Your task to perform on an android device: Go to display settings Image 0: 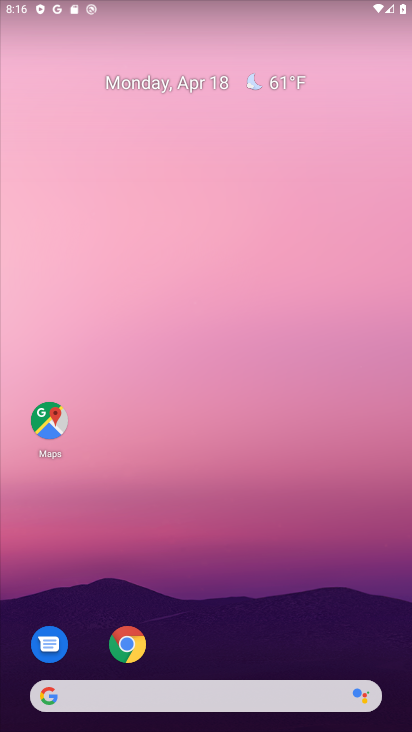
Step 0: drag from (231, 676) to (233, 103)
Your task to perform on an android device: Go to display settings Image 1: 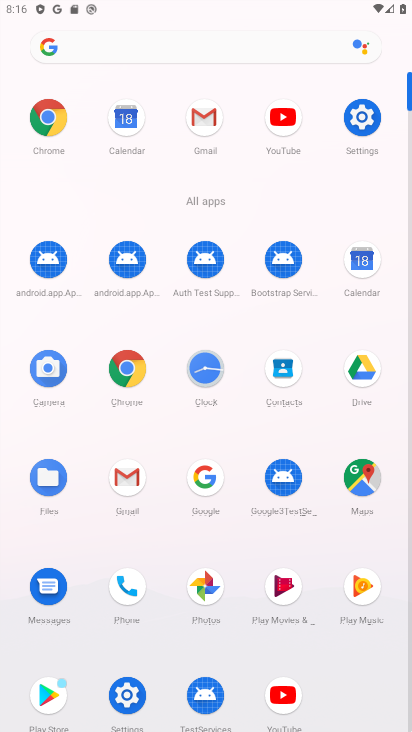
Step 1: click (355, 108)
Your task to perform on an android device: Go to display settings Image 2: 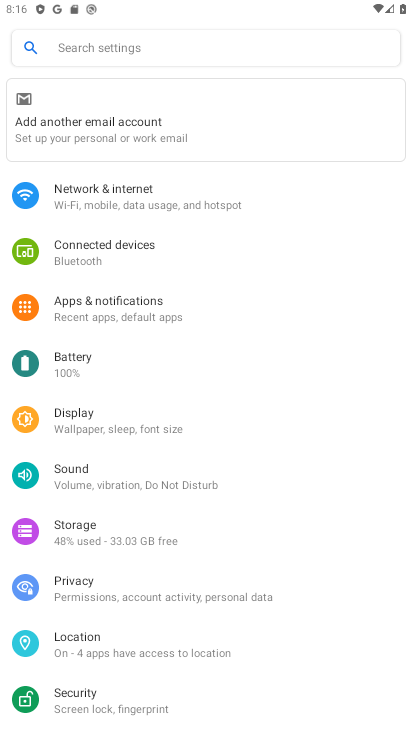
Step 2: click (90, 413)
Your task to perform on an android device: Go to display settings Image 3: 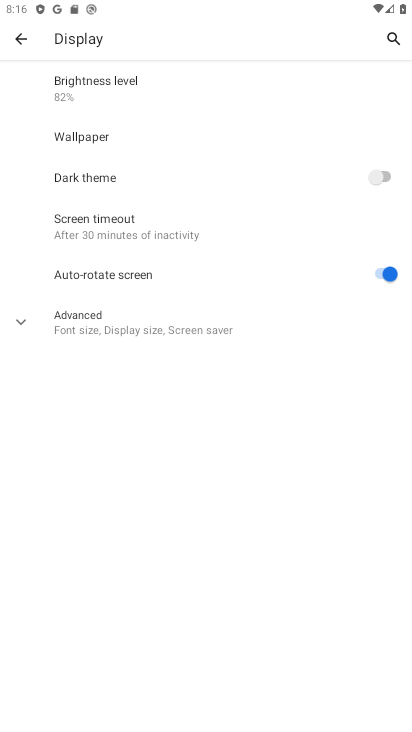
Step 3: task complete